Your task to perform on an android device: Search for Italian restaurants on Maps Image 0: 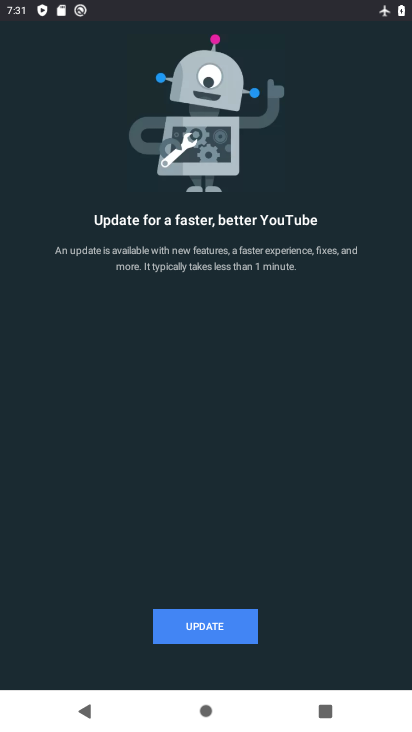
Step 0: press home button
Your task to perform on an android device: Search for Italian restaurants on Maps Image 1: 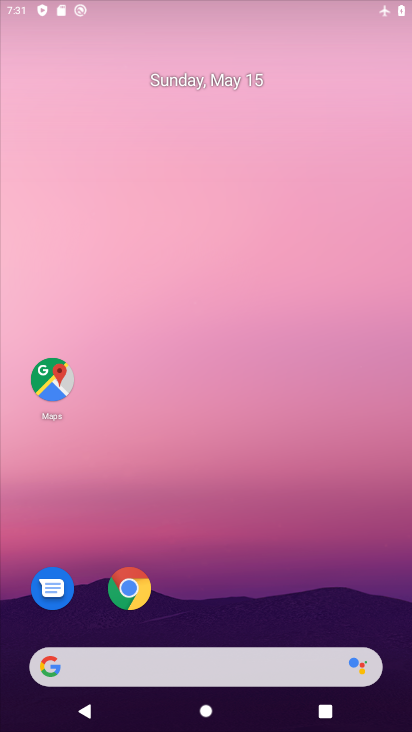
Step 1: drag from (359, 608) to (272, 72)
Your task to perform on an android device: Search for Italian restaurants on Maps Image 2: 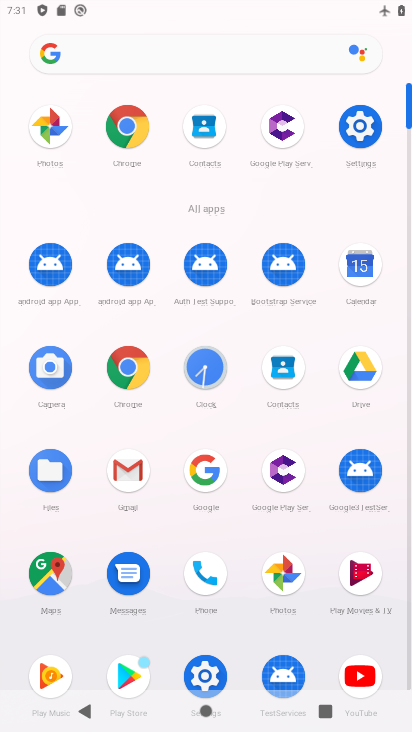
Step 2: click (52, 578)
Your task to perform on an android device: Search for Italian restaurants on Maps Image 3: 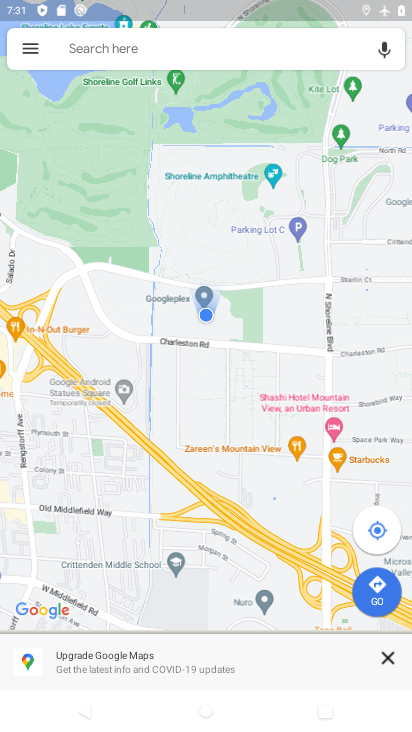
Step 3: click (130, 38)
Your task to perform on an android device: Search for Italian restaurants on Maps Image 4: 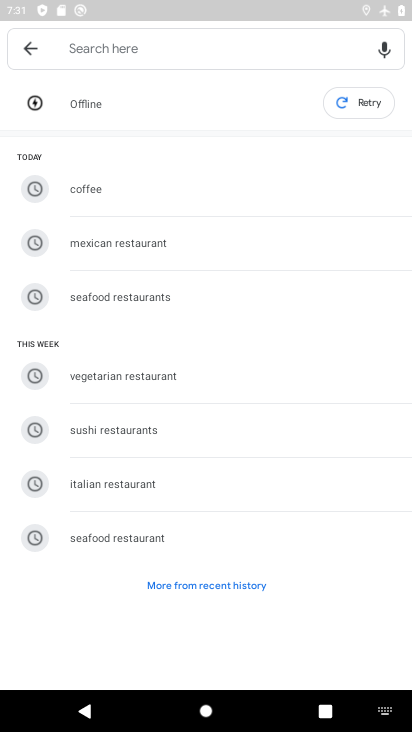
Step 4: click (143, 475)
Your task to perform on an android device: Search for Italian restaurants on Maps Image 5: 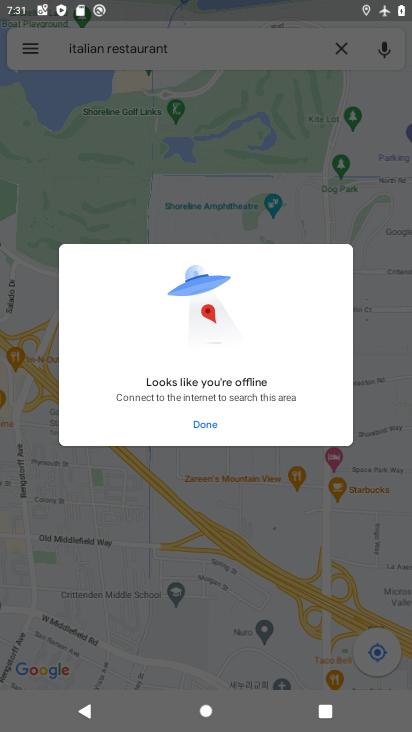
Step 5: task complete